Your task to perform on an android device: delete a single message in the gmail app Image 0: 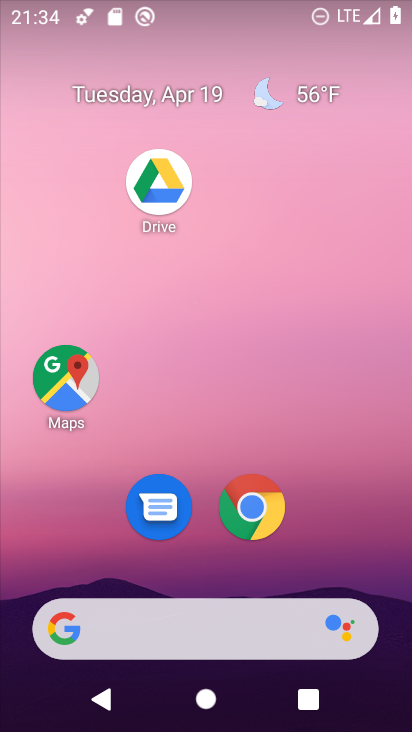
Step 0: drag from (366, 469) to (389, 102)
Your task to perform on an android device: delete a single message in the gmail app Image 1: 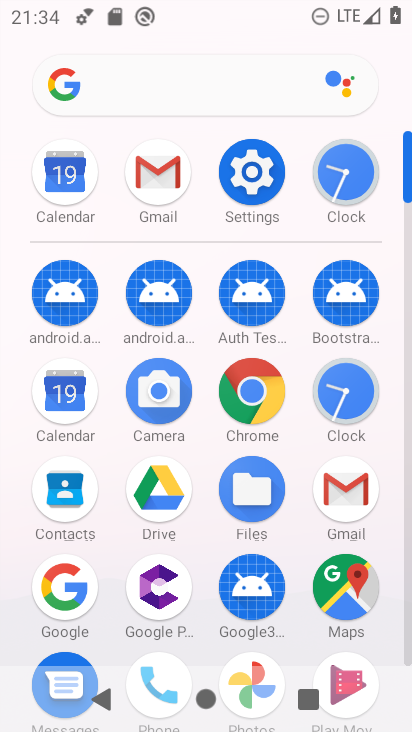
Step 1: click (162, 166)
Your task to perform on an android device: delete a single message in the gmail app Image 2: 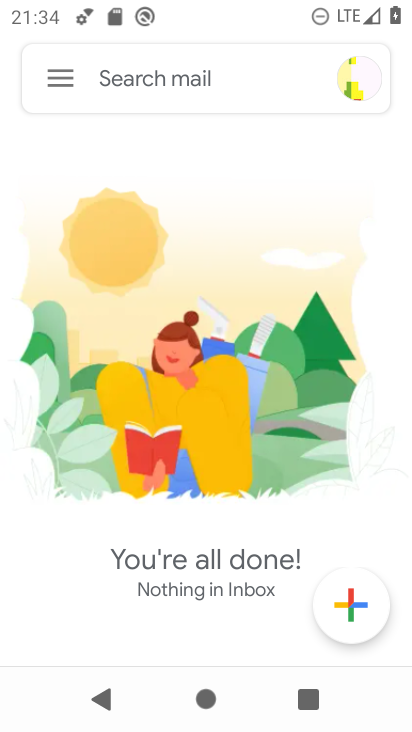
Step 2: click (57, 75)
Your task to perform on an android device: delete a single message in the gmail app Image 3: 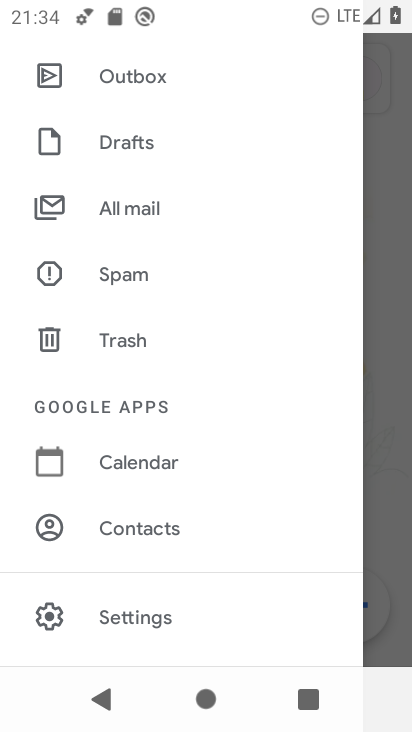
Step 3: click (123, 196)
Your task to perform on an android device: delete a single message in the gmail app Image 4: 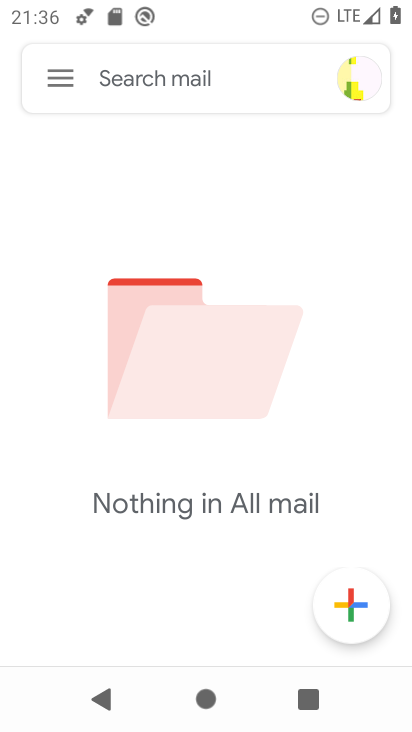
Step 4: task complete